Your task to perform on an android device: What is the capital of Sweden? Image 0: 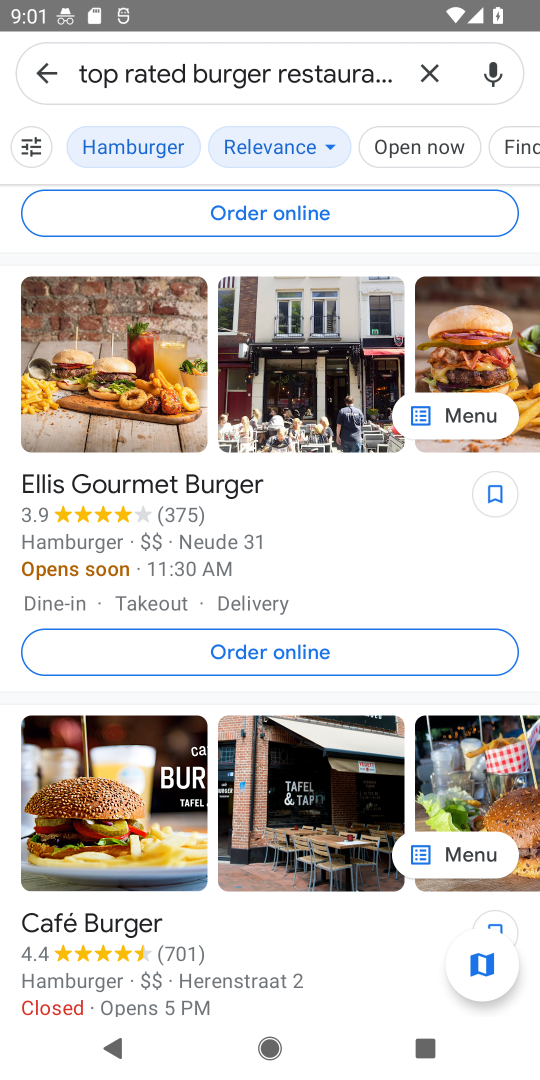
Step 0: click (433, 72)
Your task to perform on an android device: What is the capital of Sweden? Image 1: 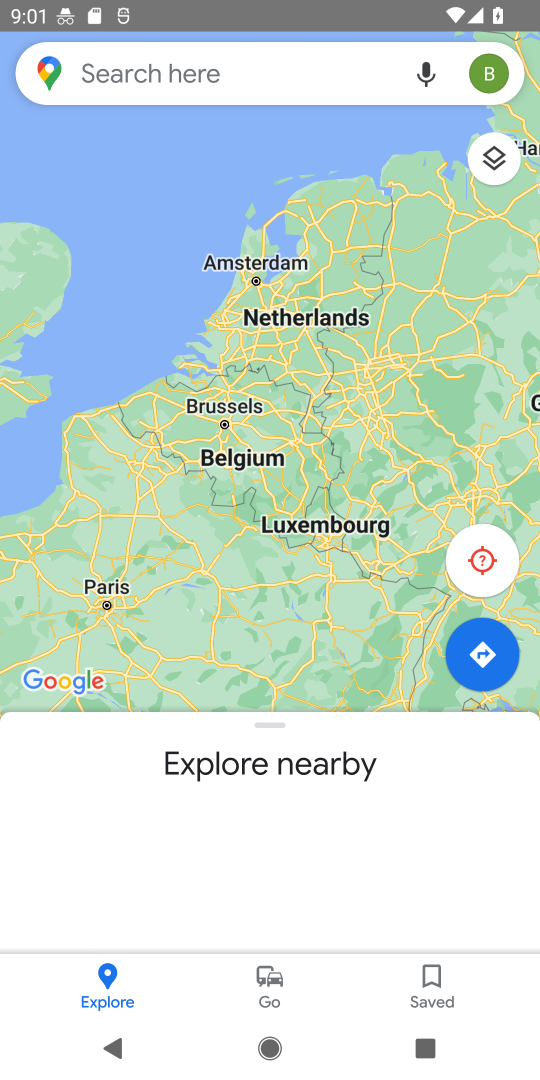
Step 1: press home button
Your task to perform on an android device: What is the capital of Sweden? Image 2: 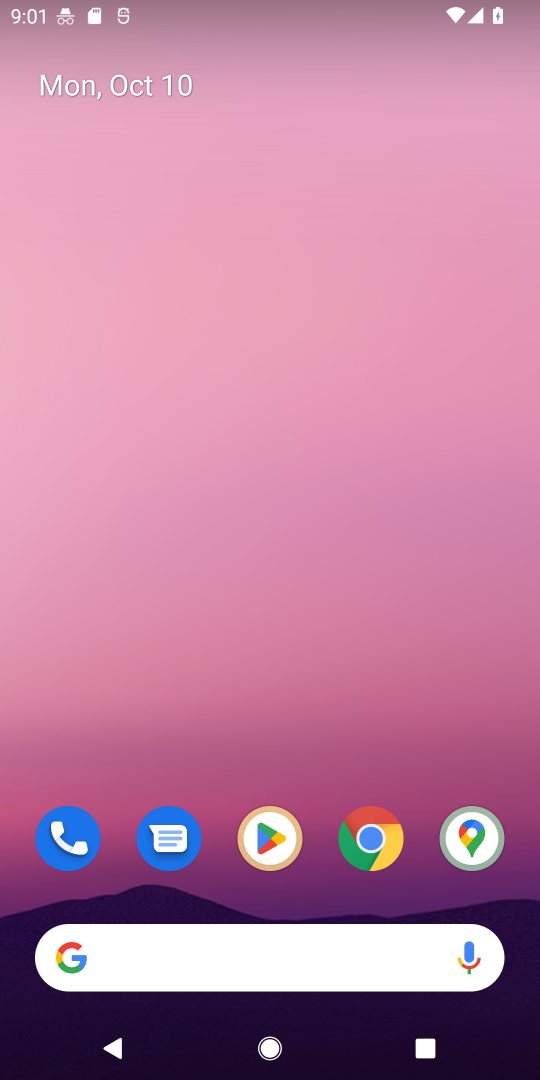
Step 2: click (376, 838)
Your task to perform on an android device: What is the capital of Sweden? Image 3: 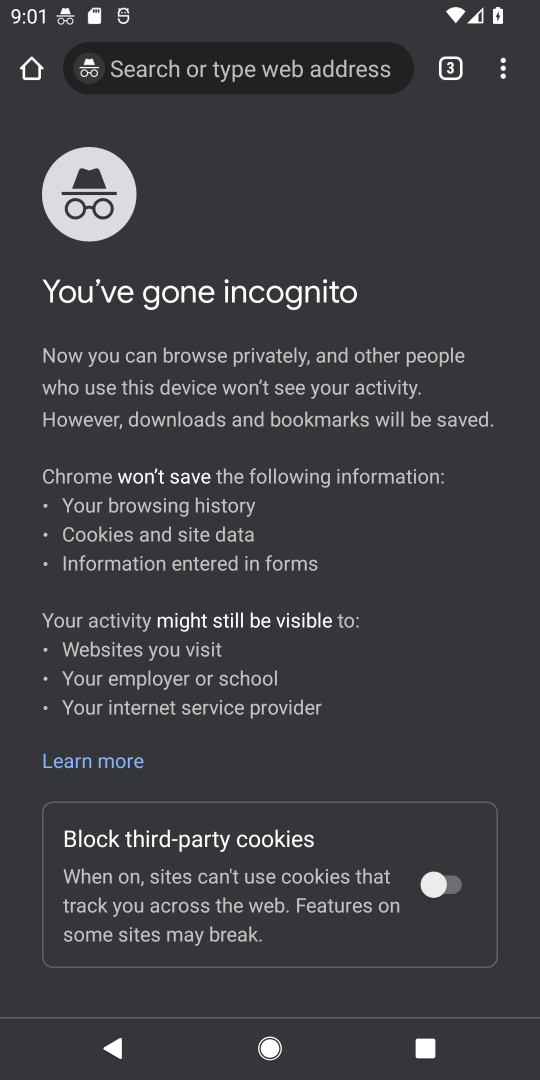
Step 3: click (444, 67)
Your task to perform on an android device: What is the capital of Sweden? Image 4: 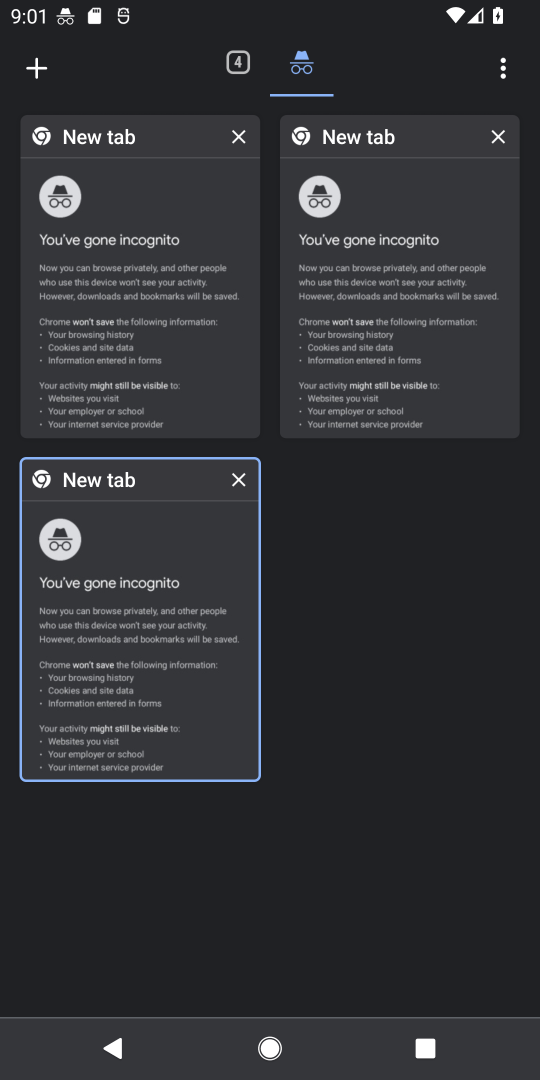
Step 4: click (230, 67)
Your task to perform on an android device: What is the capital of Sweden? Image 5: 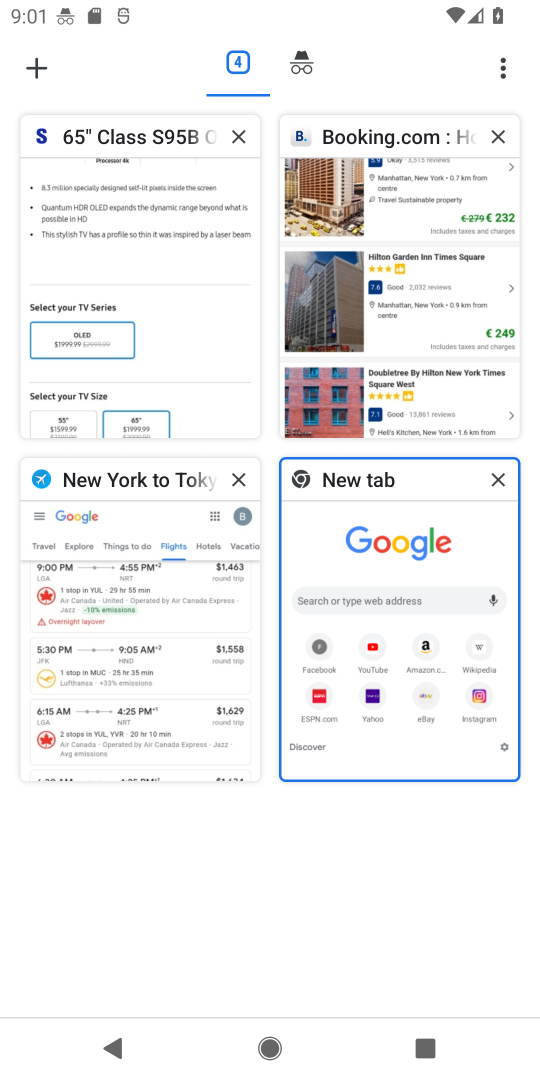
Step 5: click (377, 510)
Your task to perform on an android device: What is the capital of Sweden? Image 6: 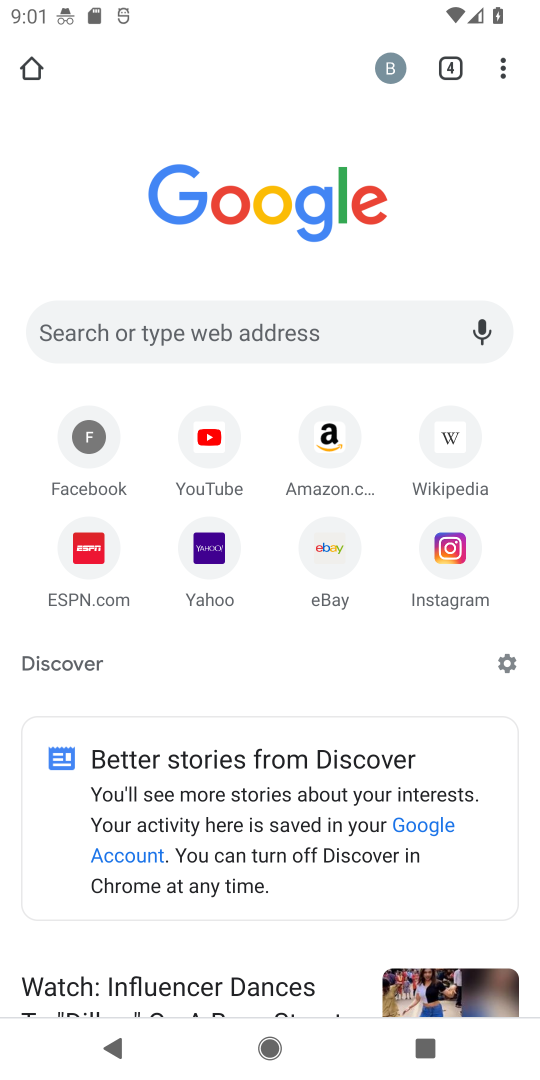
Step 6: click (181, 334)
Your task to perform on an android device: What is the capital of Sweden? Image 7: 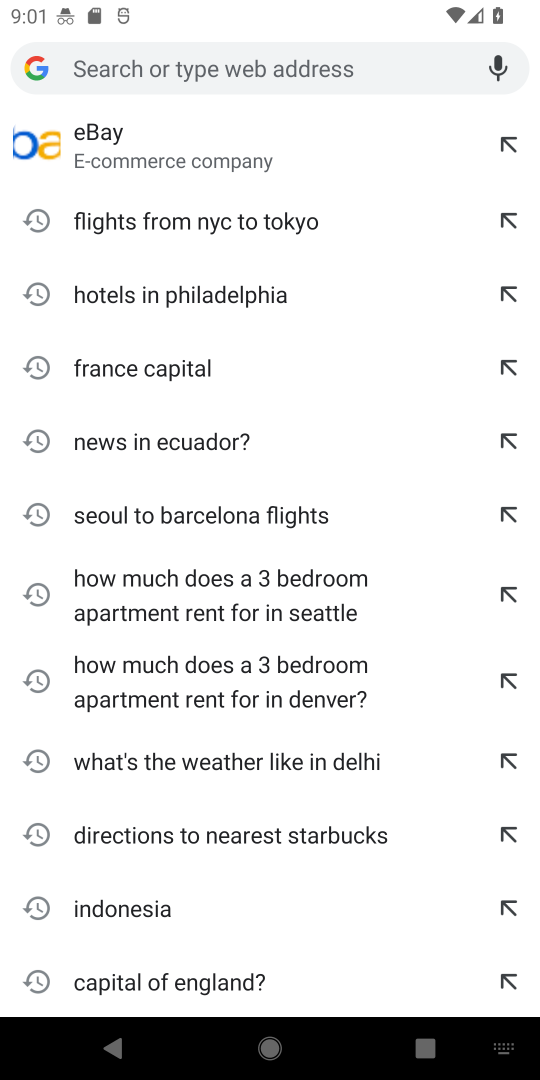
Step 7: type " capital of Sweden?"
Your task to perform on an android device: What is the capital of Sweden? Image 8: 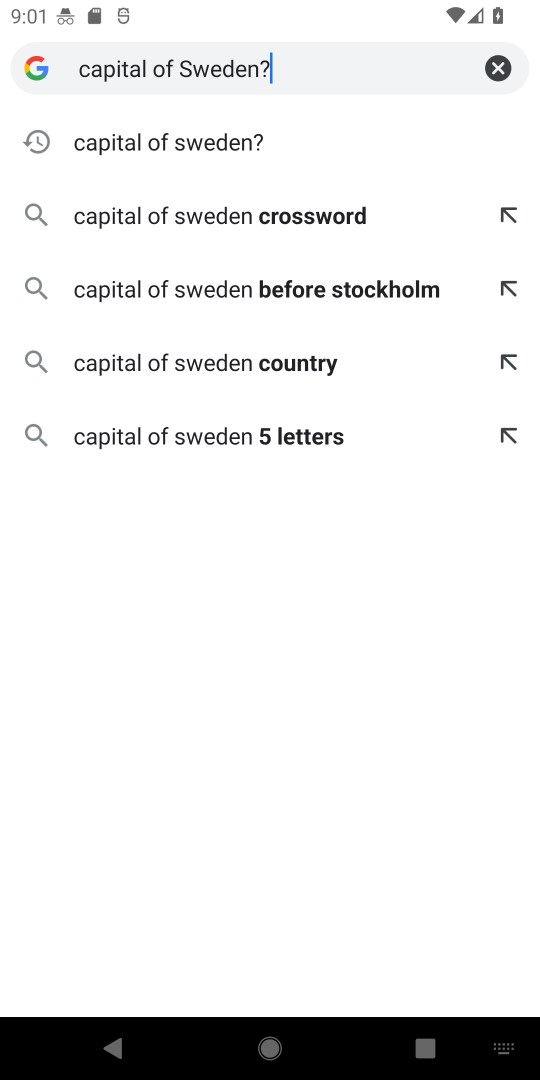
Step 8: click (129, 140)
Your task to perform on an android device: What is the capital of Sweden? Image 9: 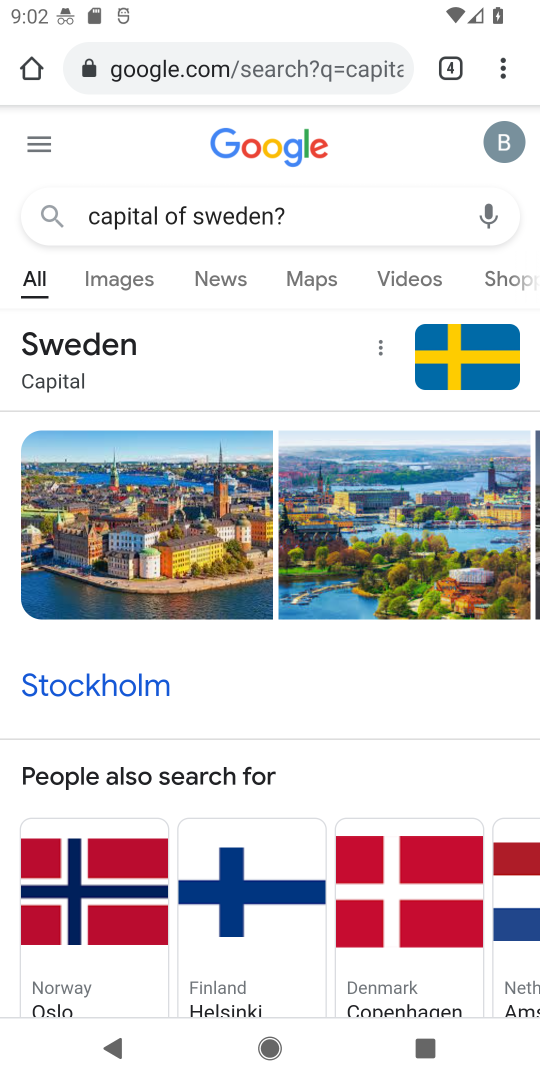
Step 9: task complete